Your task to perform on an android device: open app "PlayWell" (install if not already installed) and go to login screen Image 0: 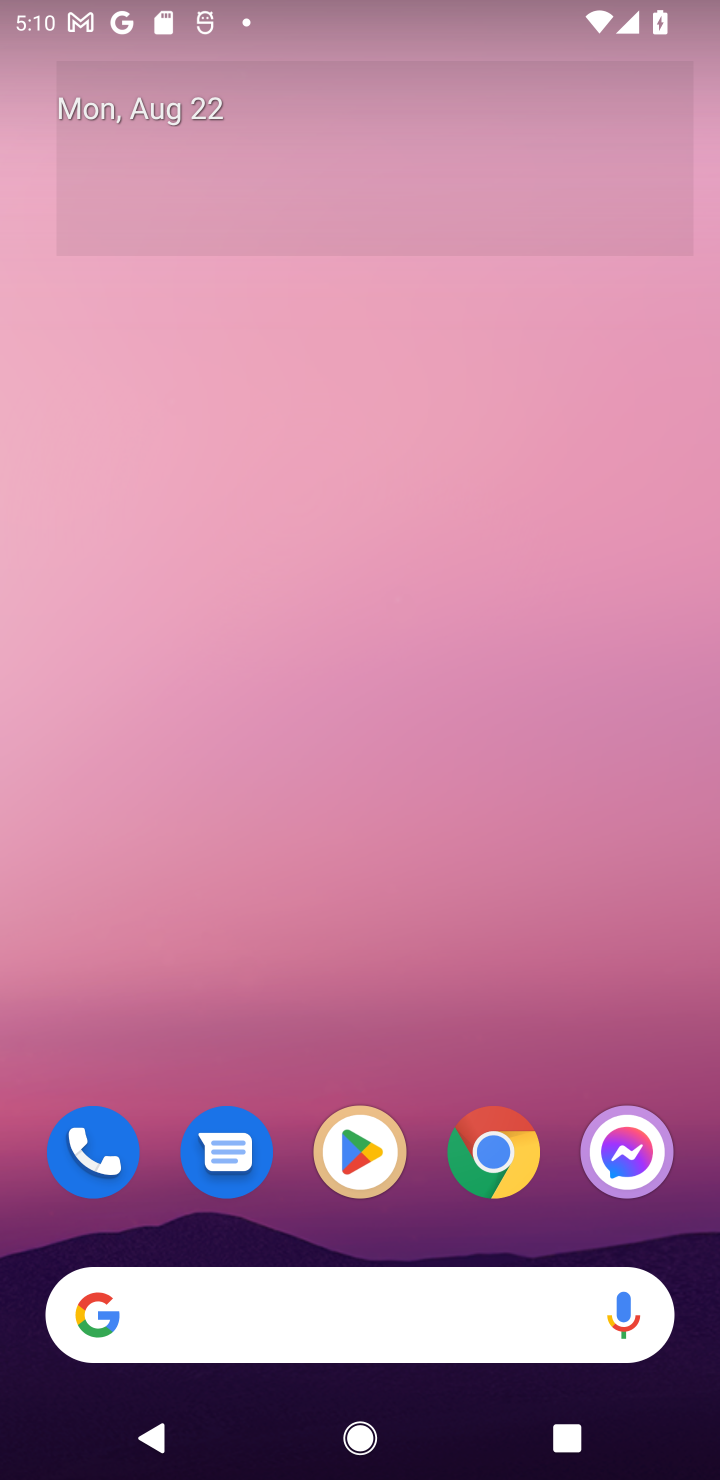
Step 0: click (348, 1139)
Your task to perform on an android device: open app "PlayWell" (install if not already installed) and go to login screen Image 1: 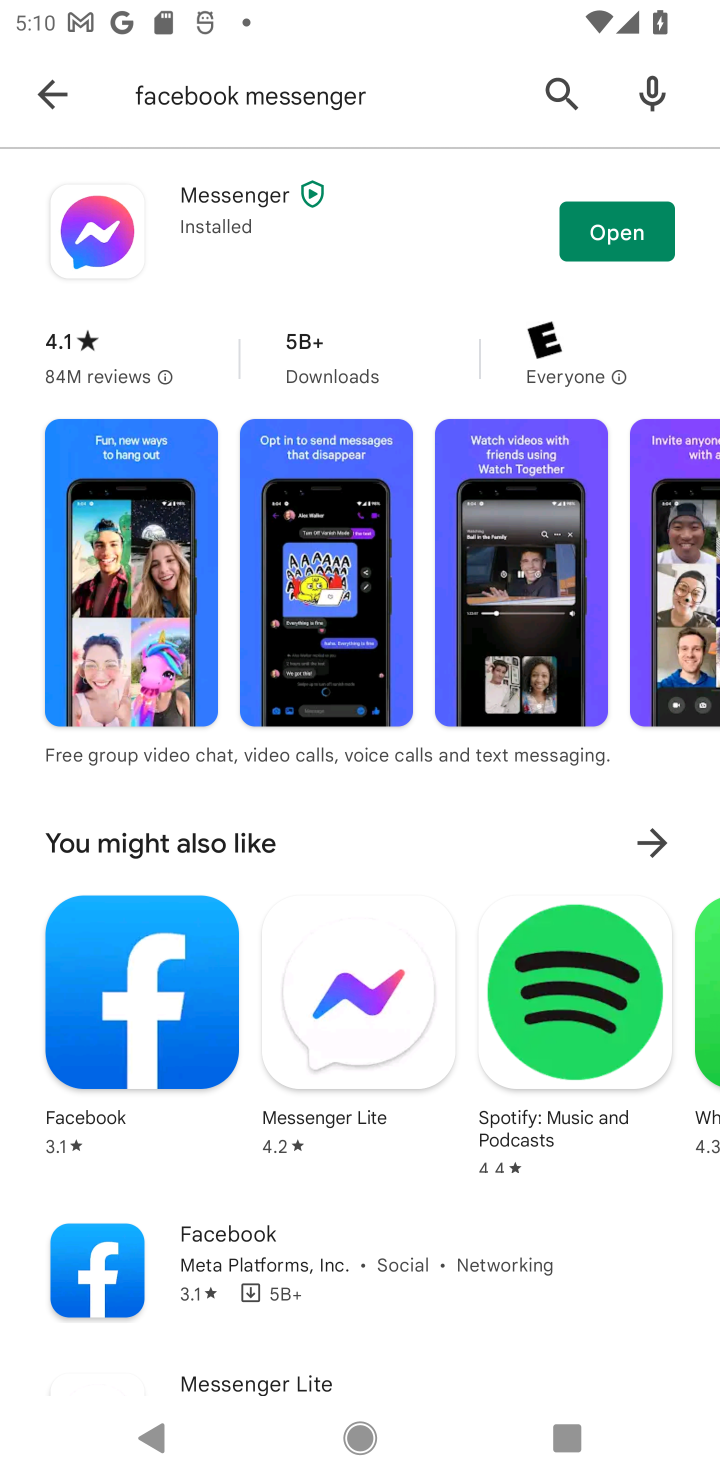
Step 1: click (29, 101)
Your task to perform on an android device: open app "PlayWell" (install if not already installed) and go to login screen Image 2: 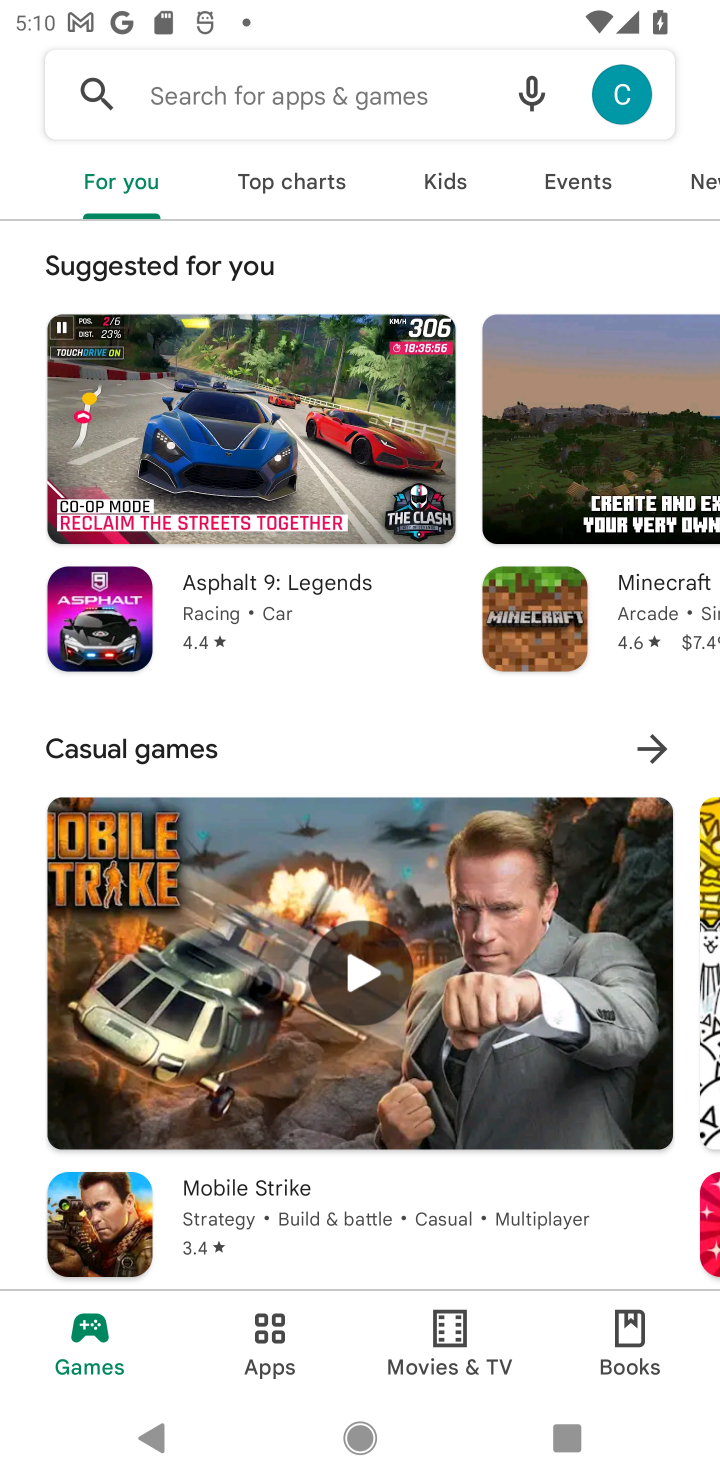
Step 2: click (262, 91)
Your task to perform on an android device: open app "PlayWell" (install if not already installed) and go to login screen Image 3: 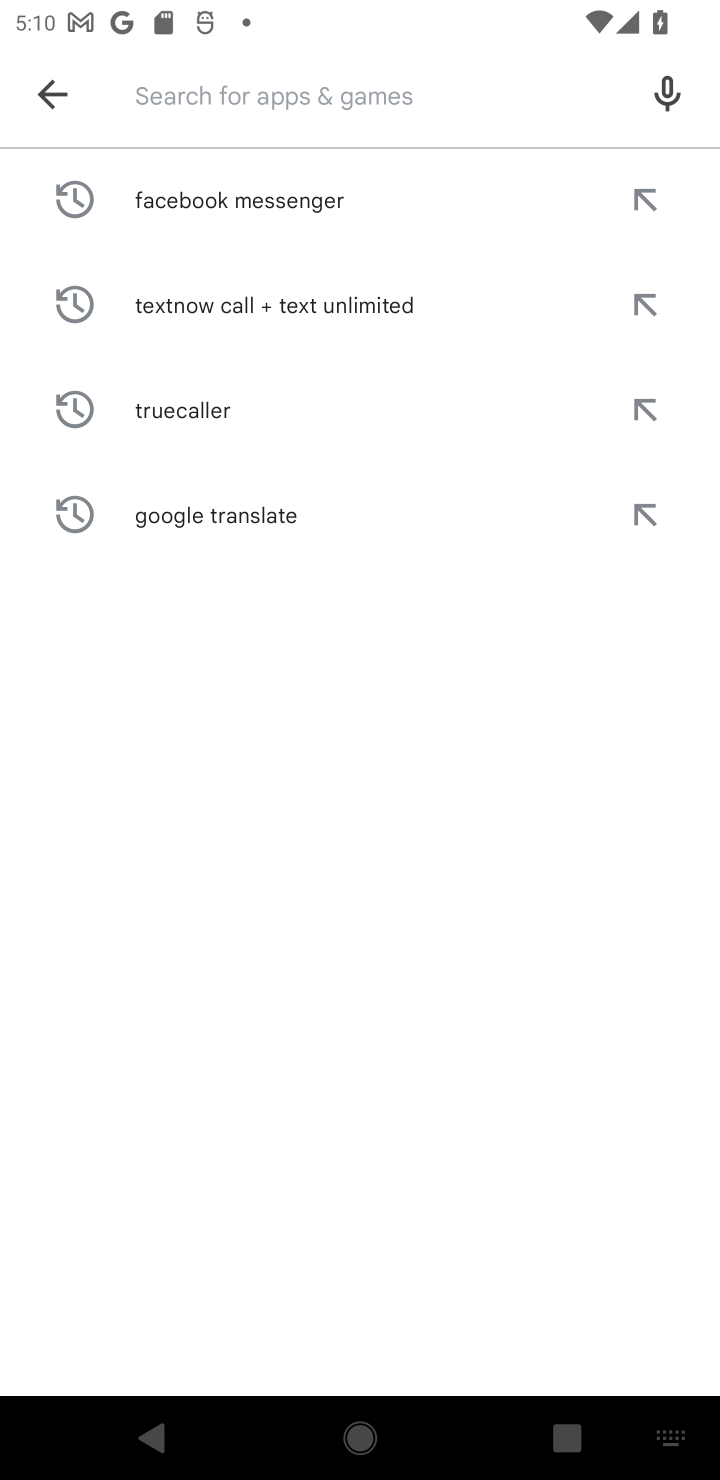
Step 3: click (385, 1468)
Your task to perform on an android device: open app "PlayWell" (install if not already installed) and go to login screen Image 4: 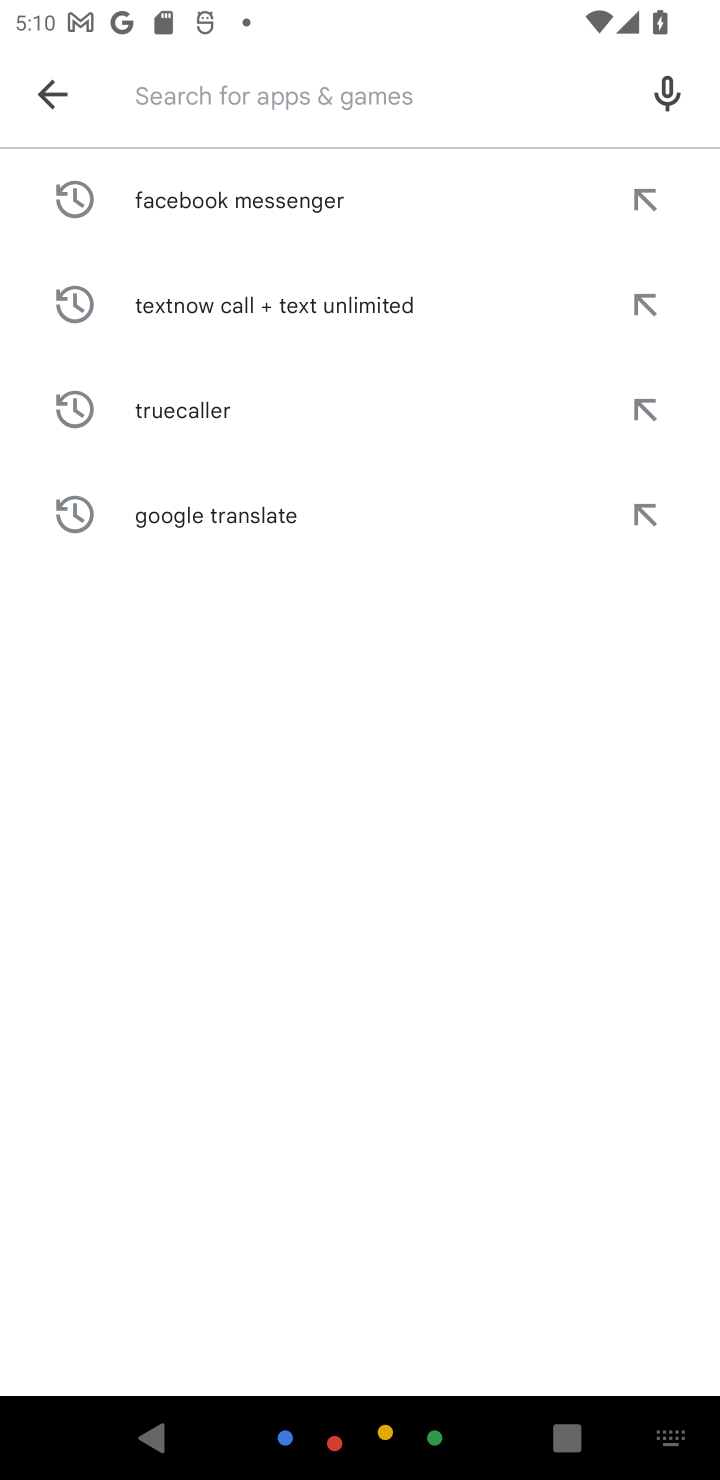
Step 4: type "PlayWell"
Your task to perform on an android device: open app "PlayWell" (install if not already installed) and go to login screen Image 5: 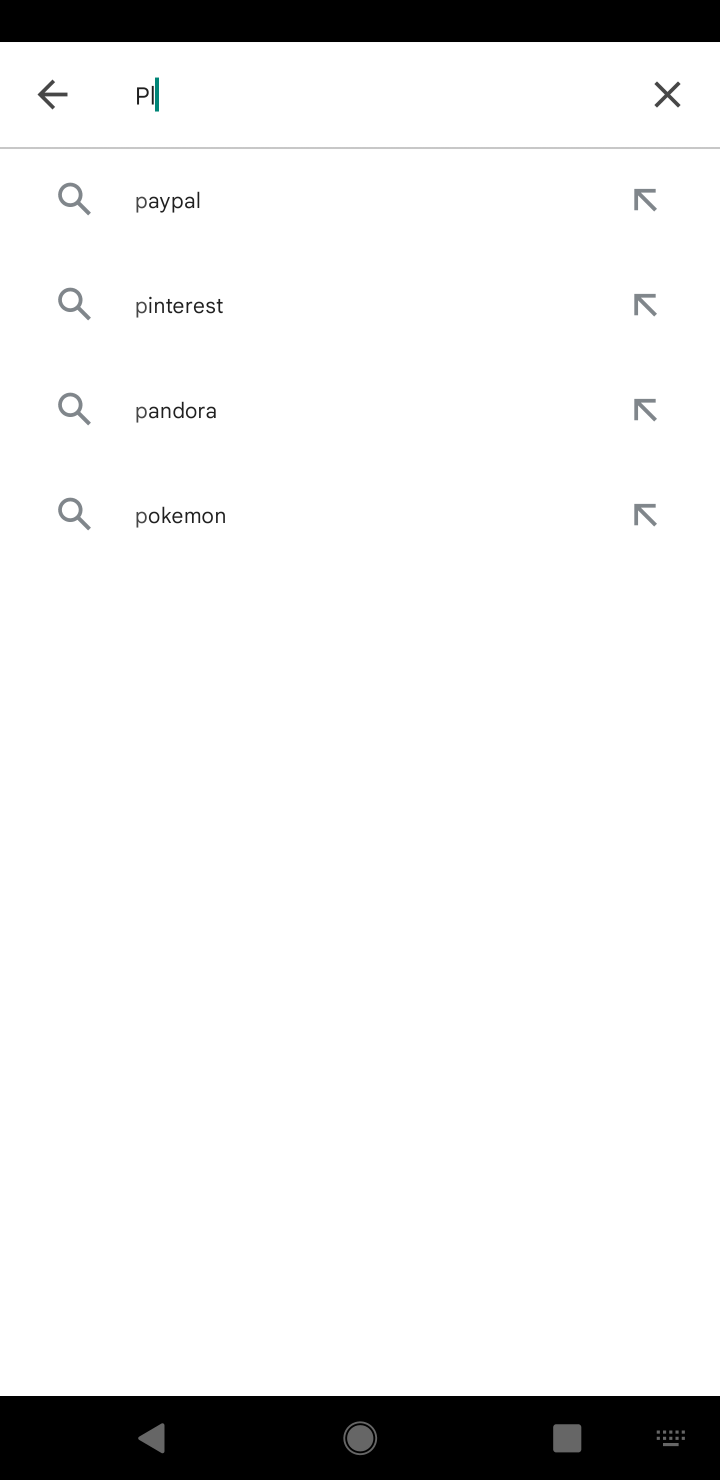
Step 5: drag from (385, 1468) to (700, 250)
Your task to perform on an android device: open app "PlayWell" (install if not already installed) and go to login screen Image 6: 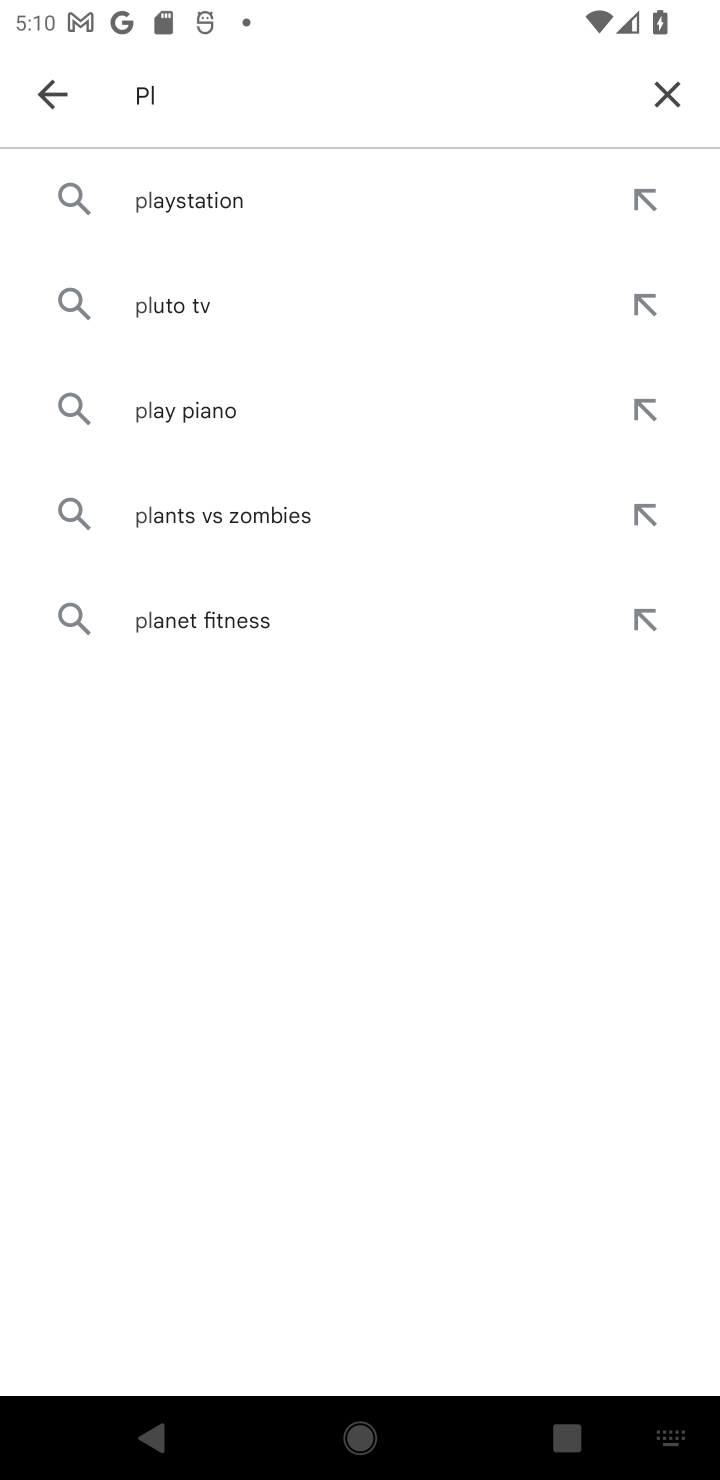
Step 6: click (661, 94)
Your task to perform on an android device: open app "PlayWell" (install if not already installed) and go to login screen Image 7: 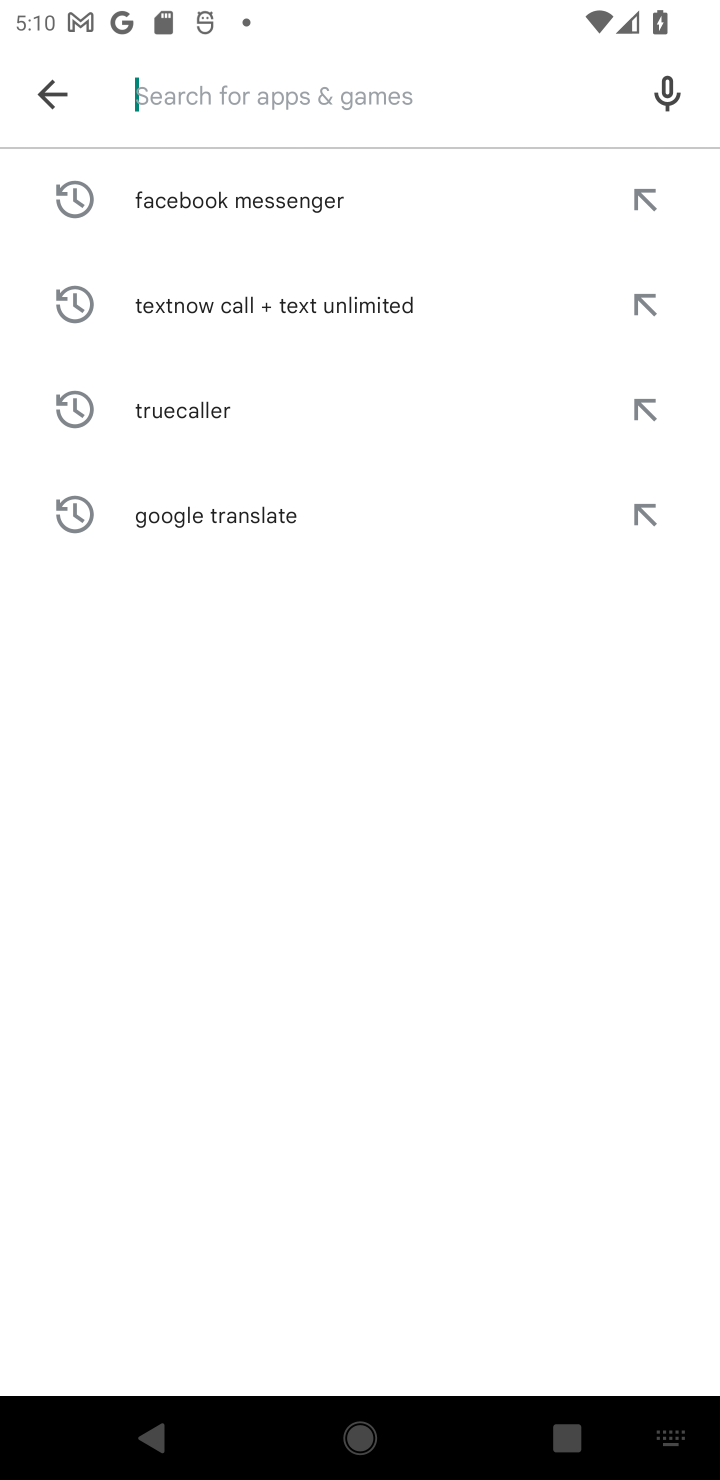
Step 7: type "PlayWell"
Your task to perform on an android device: open app "PlayWell" (install if not already installed) and go to login screen Image 8: 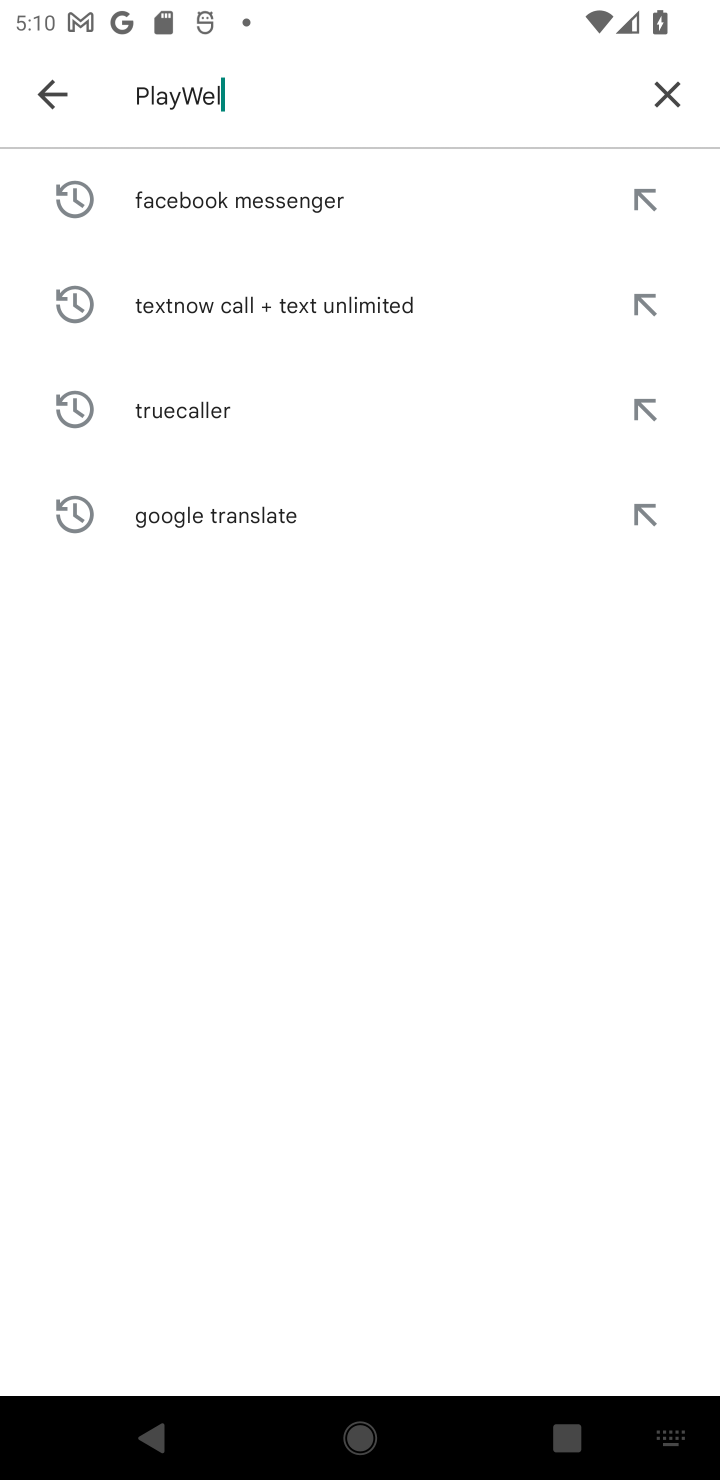
Step 8: type ""
Your task to perform on an android device: open app "PlayWell" (install if not already installed) and go to login screen Image 9: 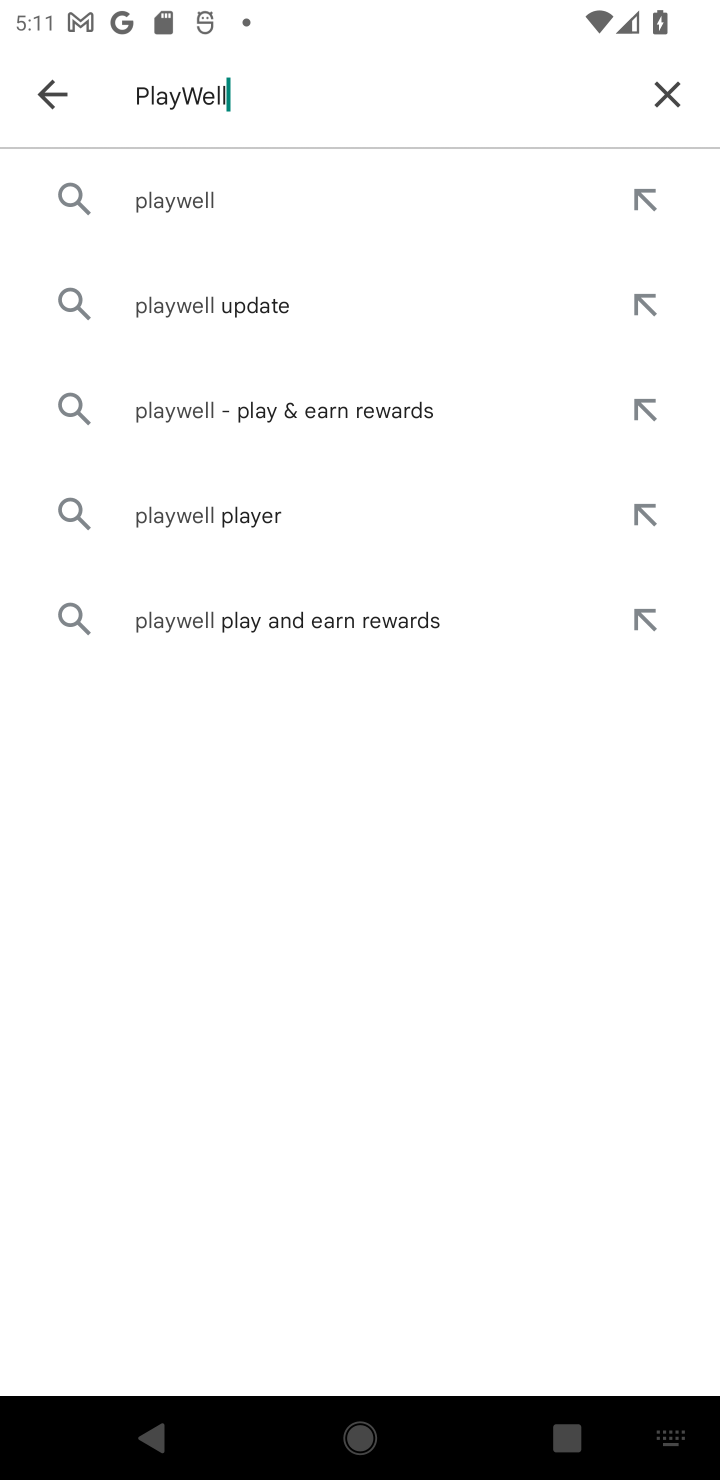
Step 9: click (162, 206)
Your task to perform on an android device: open app "PlayWell" (install if not already installed) and go to login screen Image 10: 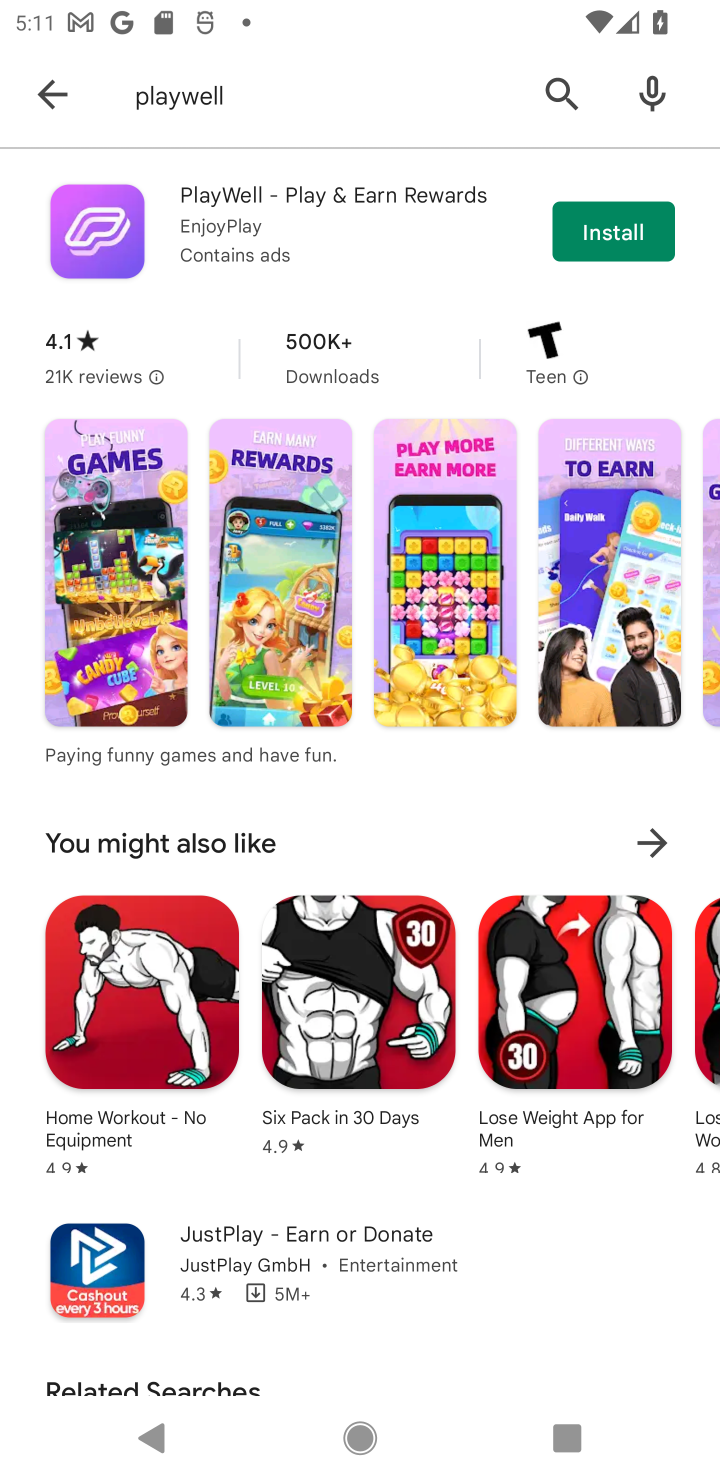
Step 10: click (596, 225)
Your task to perform on an android device: open app "PlayWell" (install if not already installed) and go to login screen Image 11: 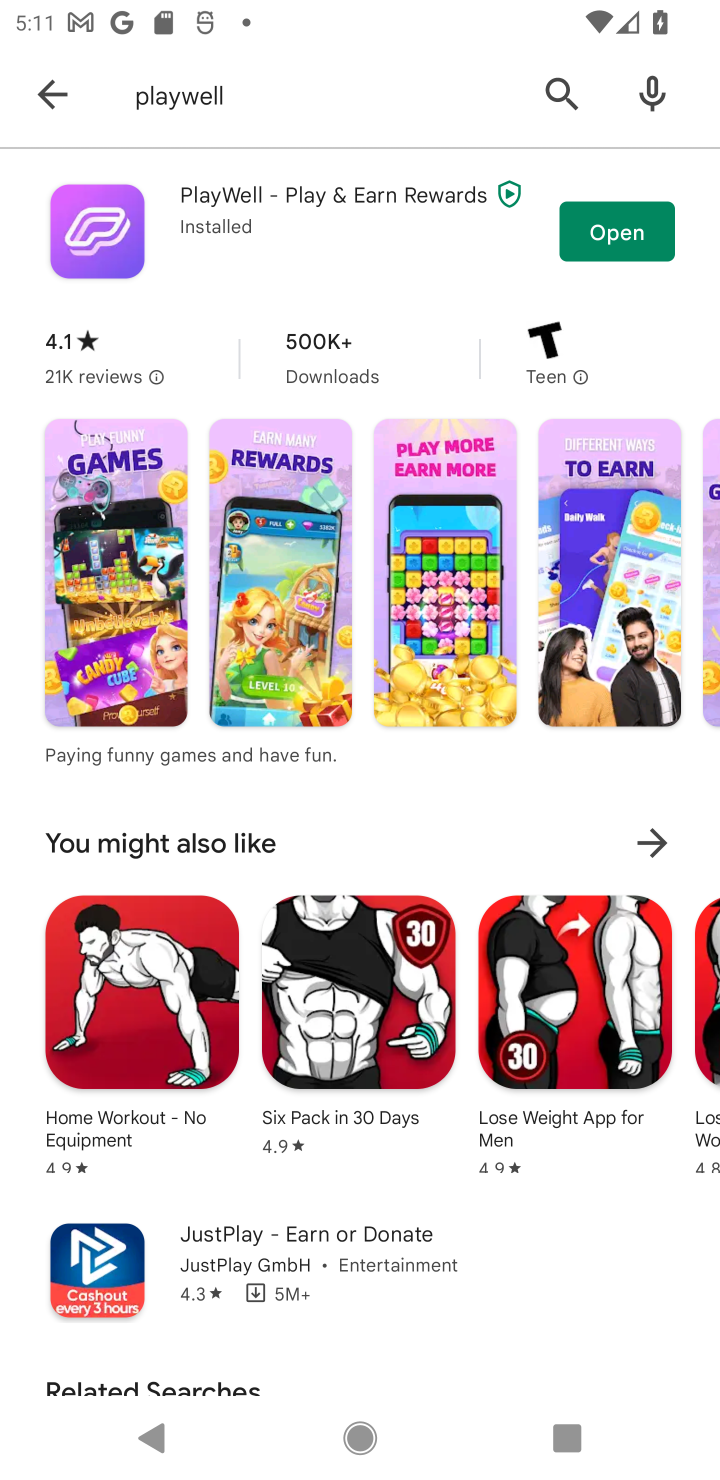
Step 11: click (629, 243)
Your task to perform on an android device: open app "PlayWell" (install if not already installed) and go to login screen Image 12: 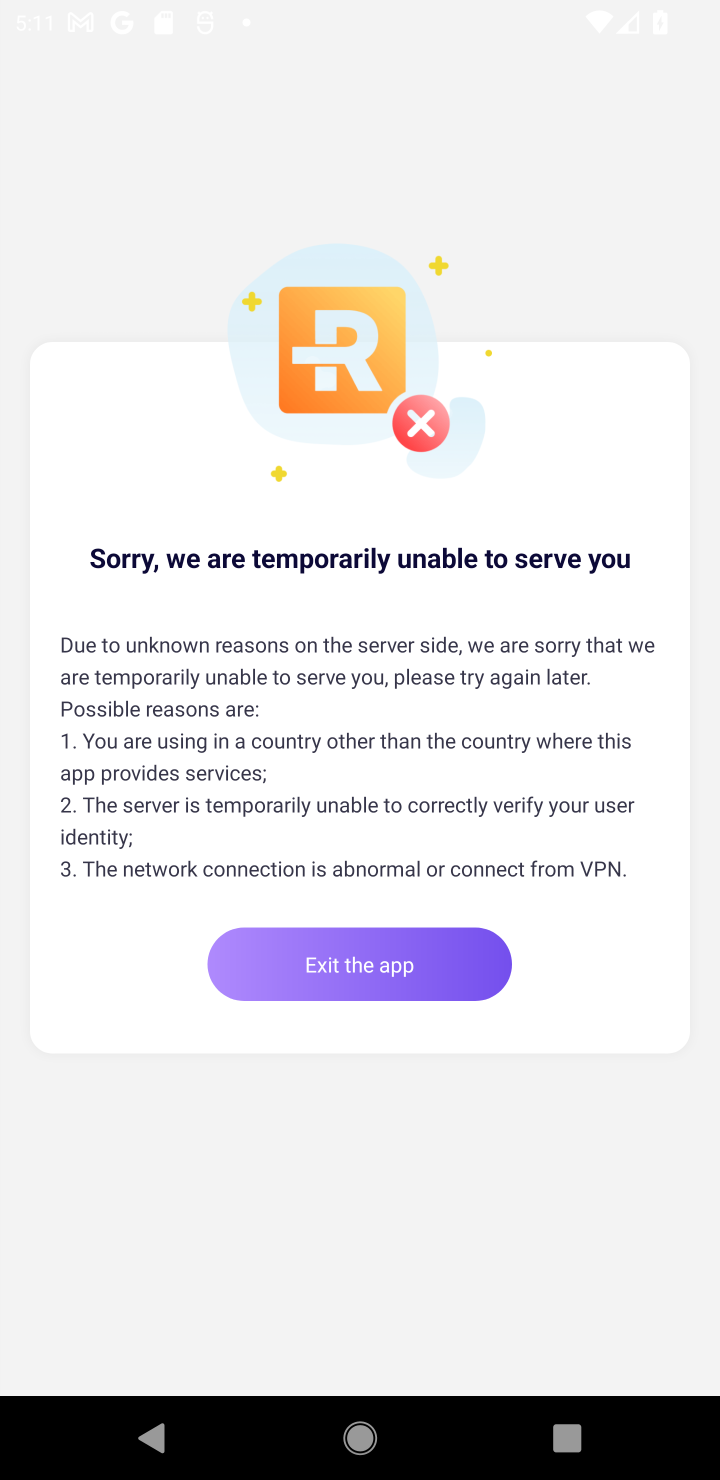
Step 12: task complete